Your task to perform on an android device: open app "PlayWell" Image 0: 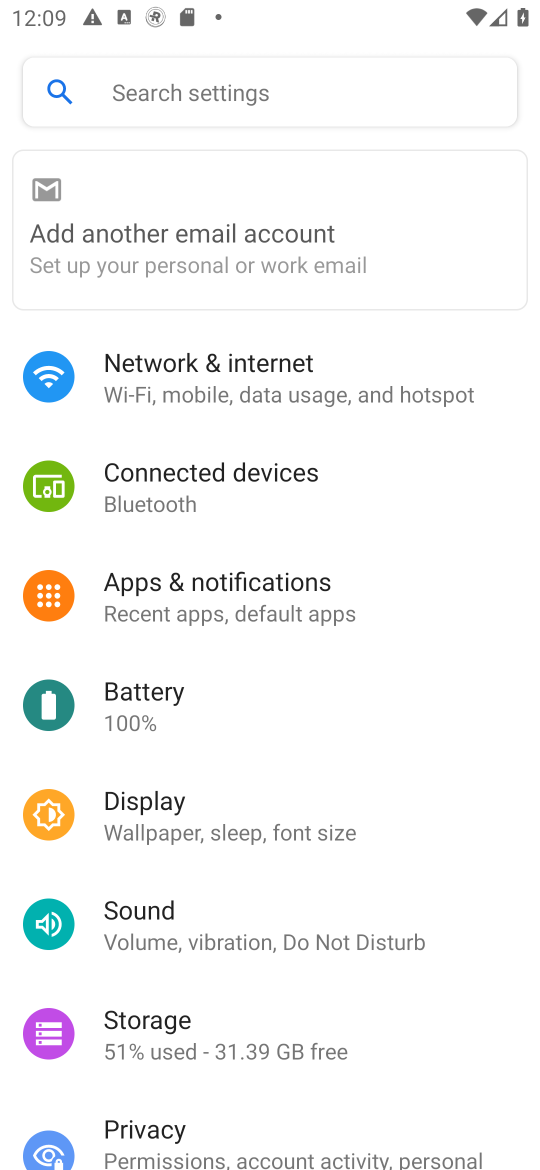
Step 0: press home button
Your task to perform on an android device: open app "PlayWell" Image 1: 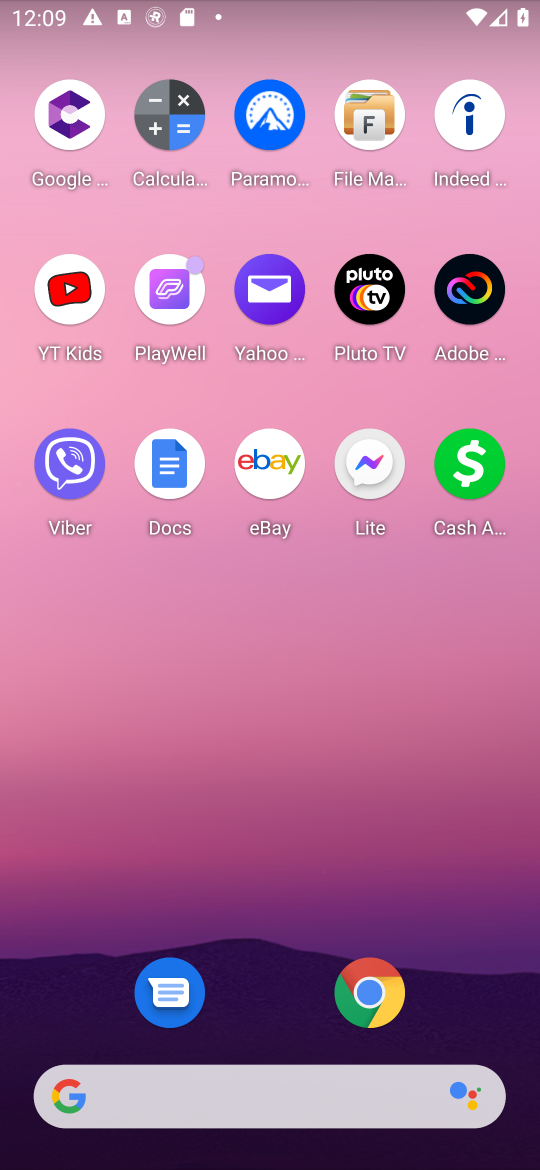
Step 1: drag from (233, 1094) to (216, 120)
Your task to perform on an android device: open app "PlayWell" Image 2: 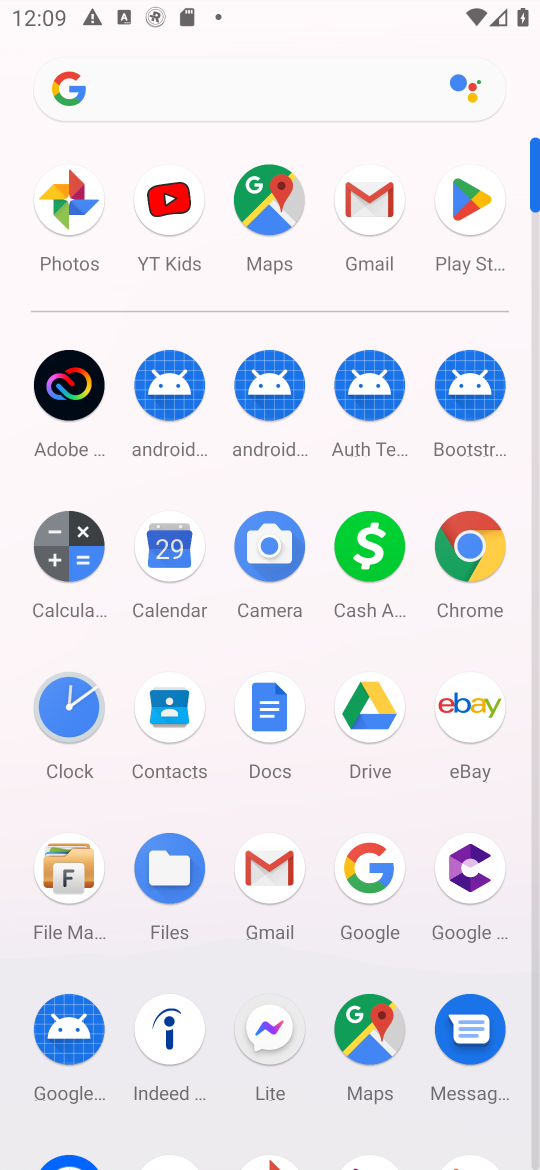
Step 2: click (478, 202)
Your task to perform on an android device: open app "PlayWell" Image 3: 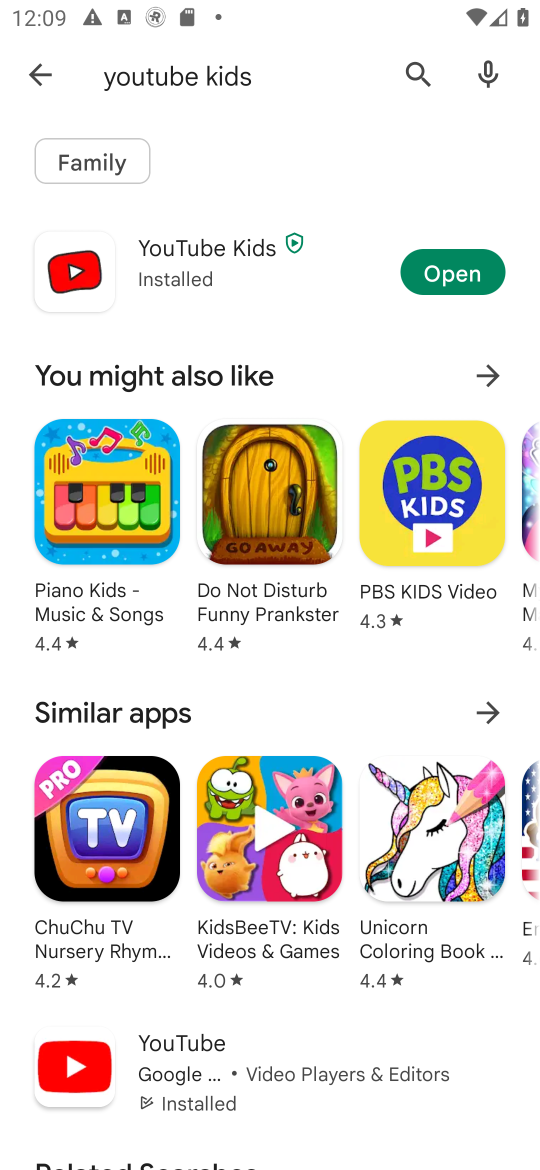
Step 3: click (415, 70)
Your task to perform on an android device: open app "PlayWell" Image 4: 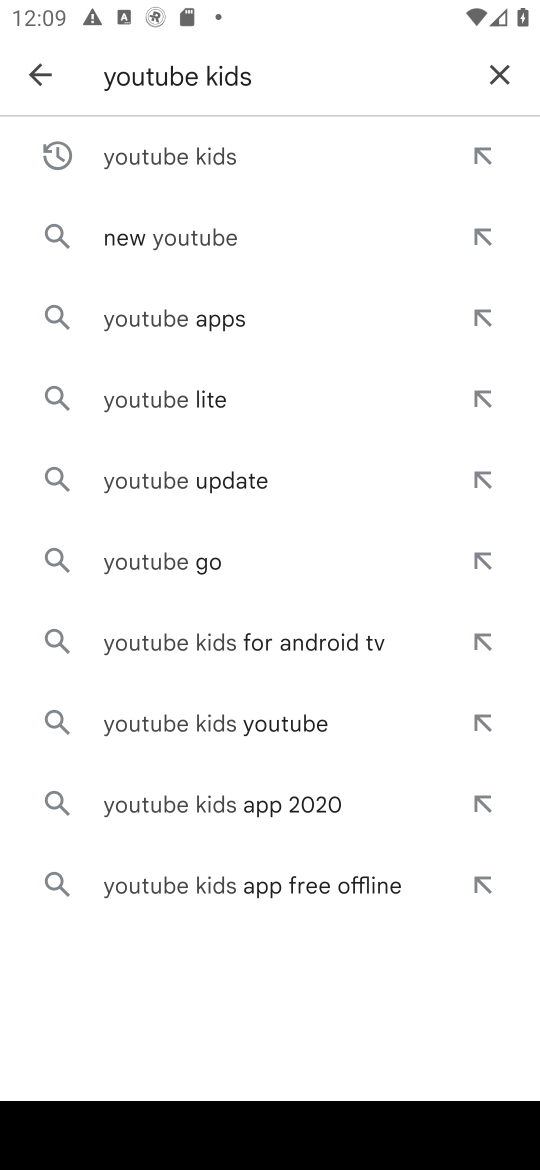
Step 4: click (498, 82)
Your task to perform on an android device: open app "PlayWell" Image 5: 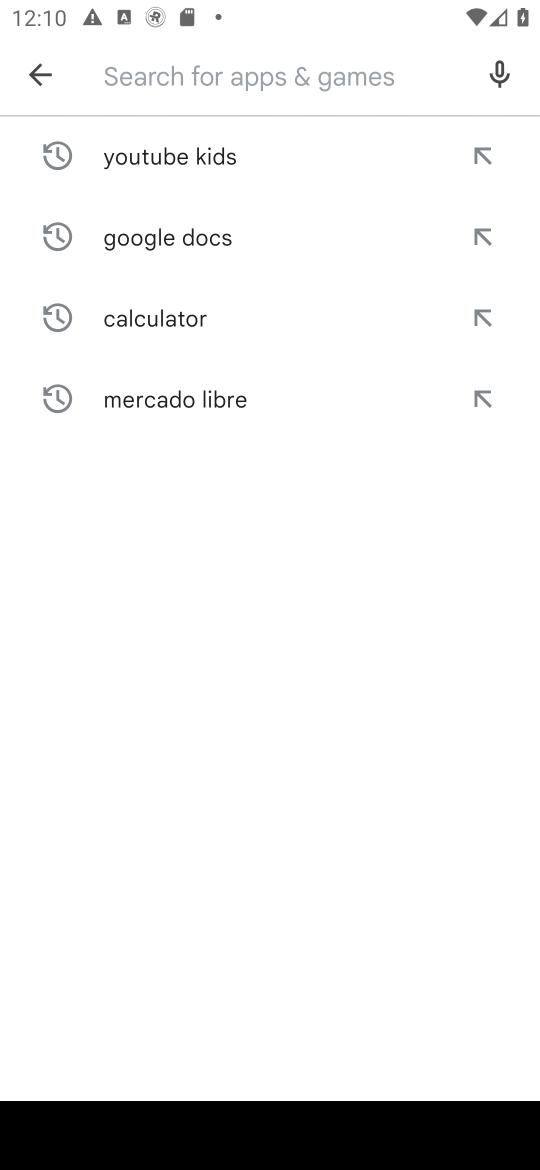
Step 5: type "PlayWell"
Your task to perform on an android device: open app "PlayWell" Image 6: 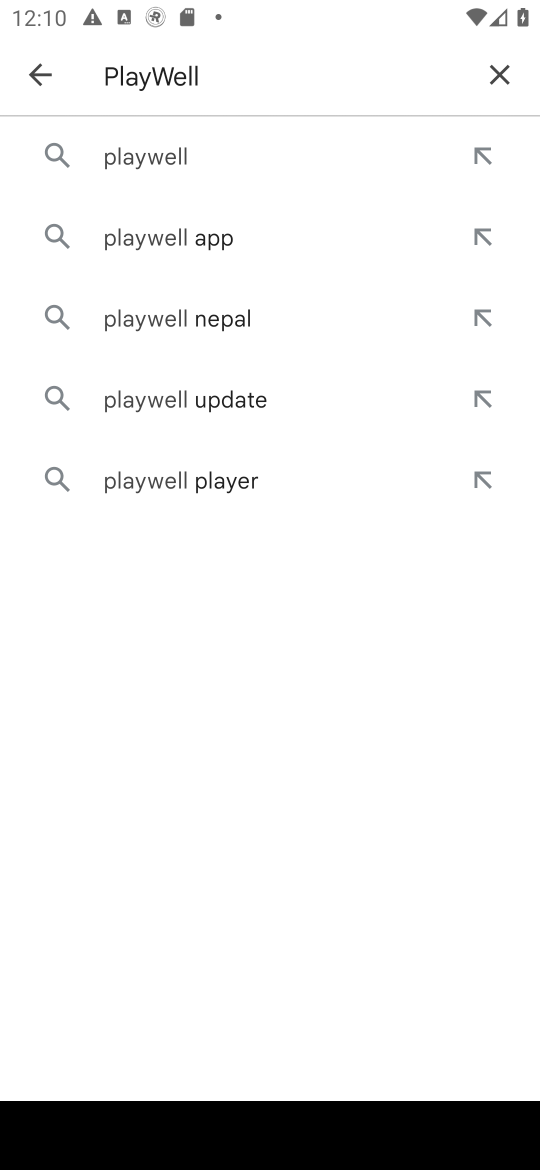
Step 6: click (171, 152)
Your task to perform on an android device: open app "PlayWell" Image 7: 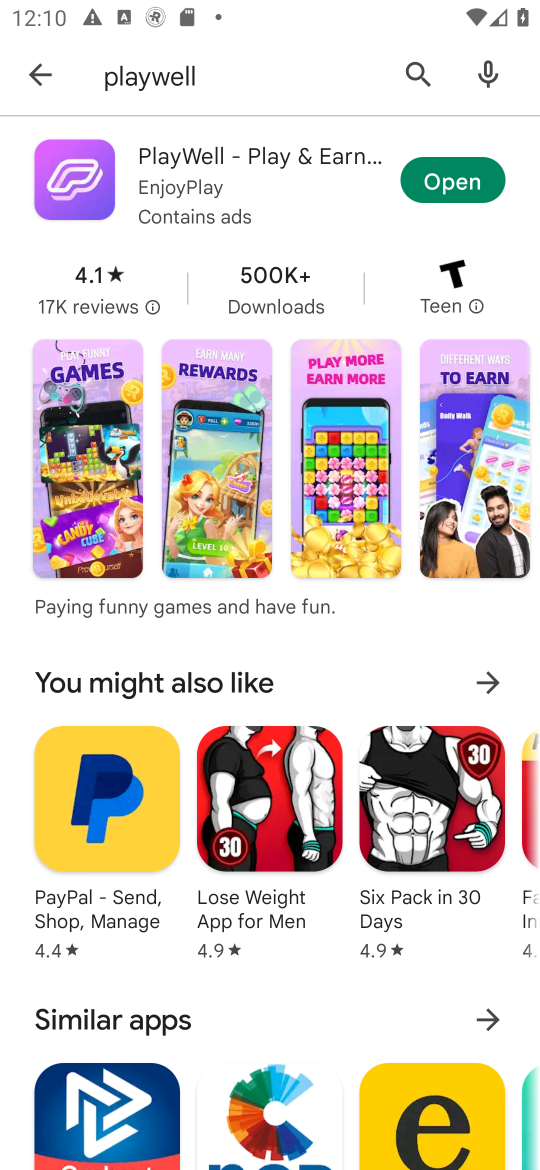
Step 7: click (436, 184)
Your task to perform on an android device: open app "PlayWell" Image 8: 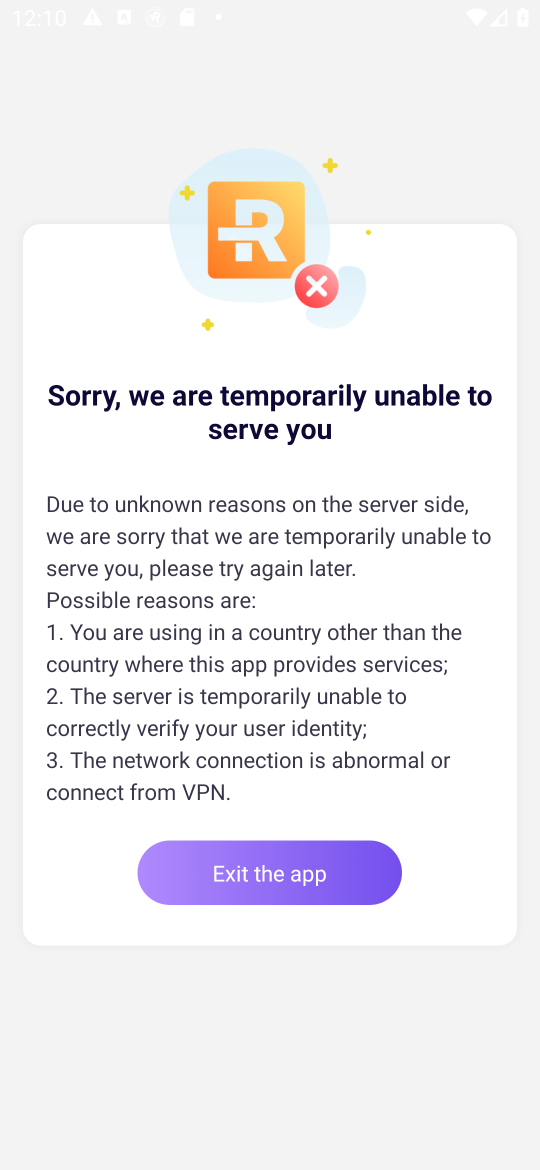
Step 8: task complete